Your task to perform on an android device: See recent photos Image 0: 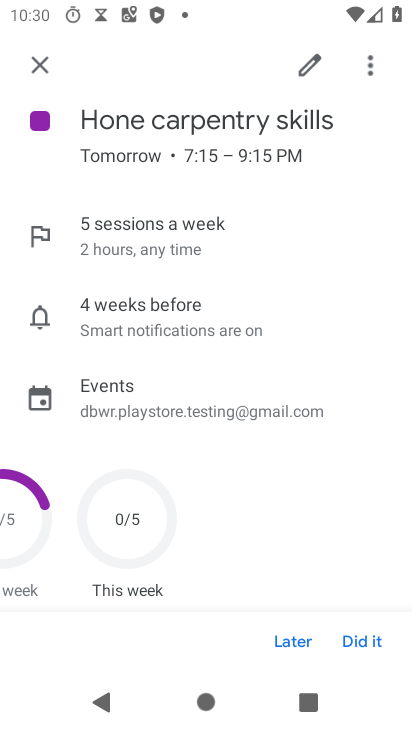
Step 0: press home button
Your task to perform on an android device: See recent photos Image 1: 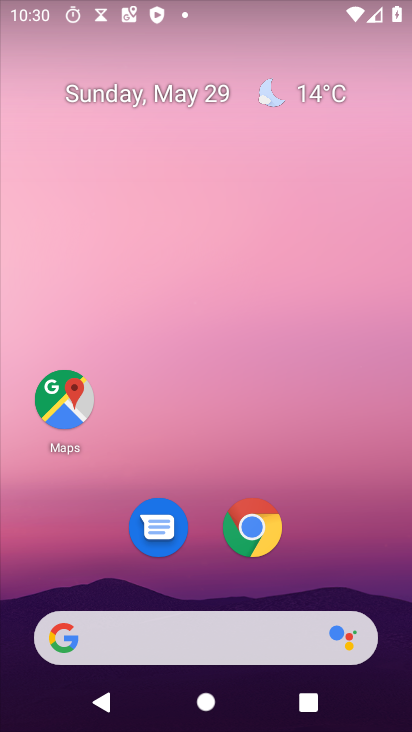
Step 1: drag from (149, 638) to (322, 55)
Your task to perform on an android device: See recent photos Image 2: 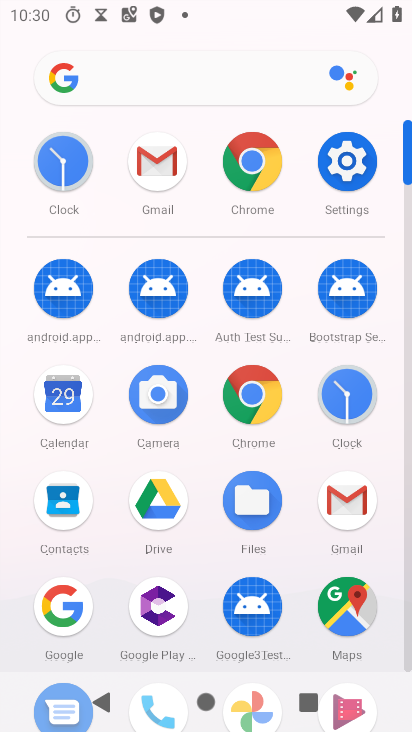
Step 2: drag from (199, 601) to (315, 128)
Your task to perform on an android device: See recent photos Image 3: 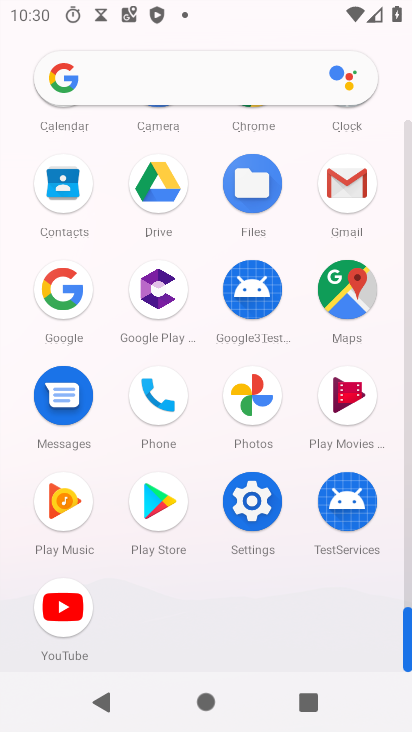
Step 3: click (249, 399)
Your task to perform on an android device: See recent photos Image 4: 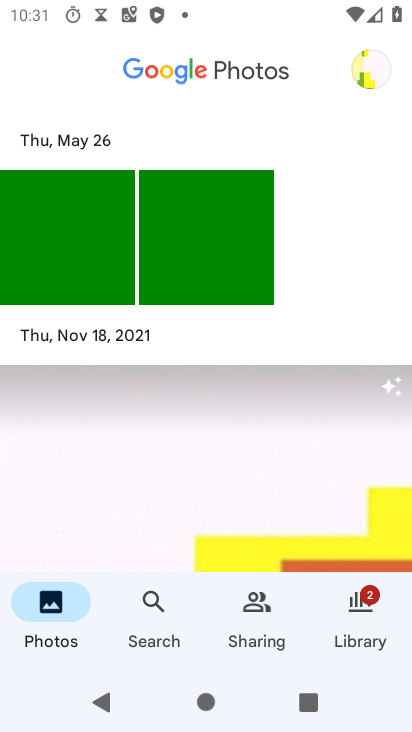
Step 4: click (365, 634)
Your task to perform on an android device: See recent photos Image 5: 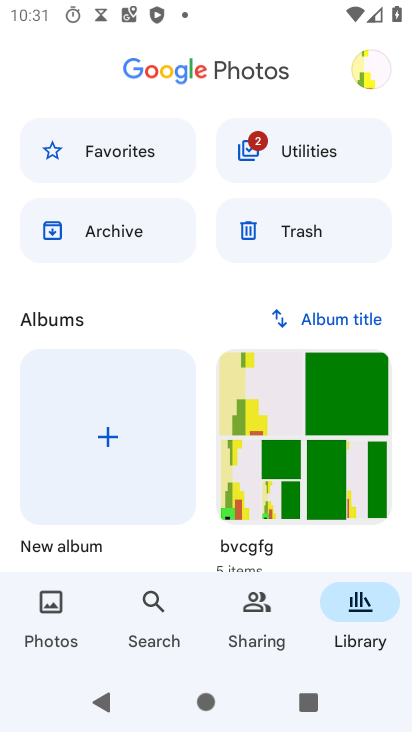
Step 5: click (154, 617)
Your task to perform on an android device: See recent photos Image 6: 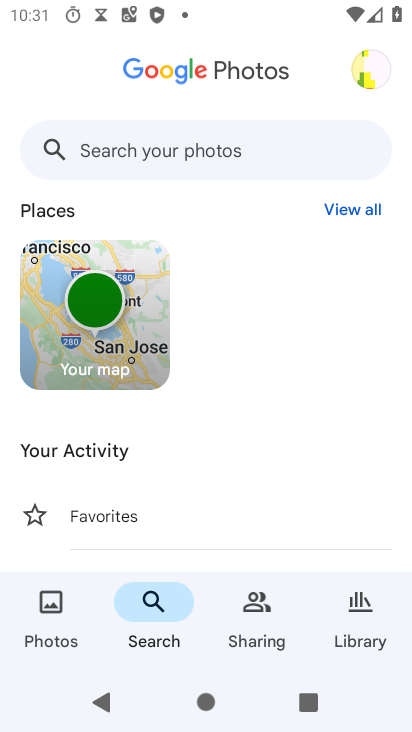
Step 6: drag from (230, 460) to (309, 6)
Your task to perform on an android device: See recent photos Image 7: 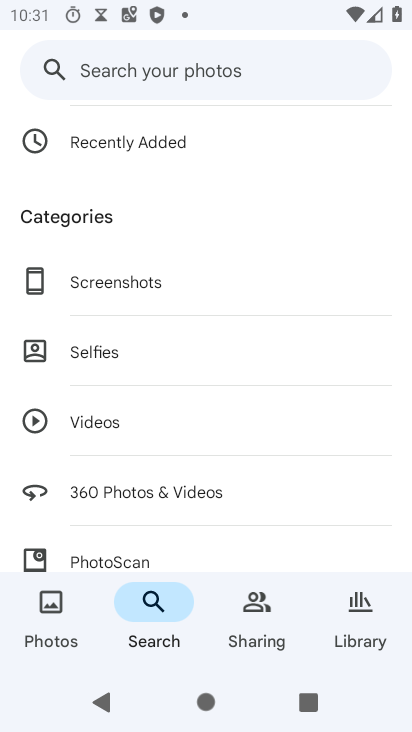
Step 7: click (165, 130)
Your task to perform on an android device: See recent photos Image 8: 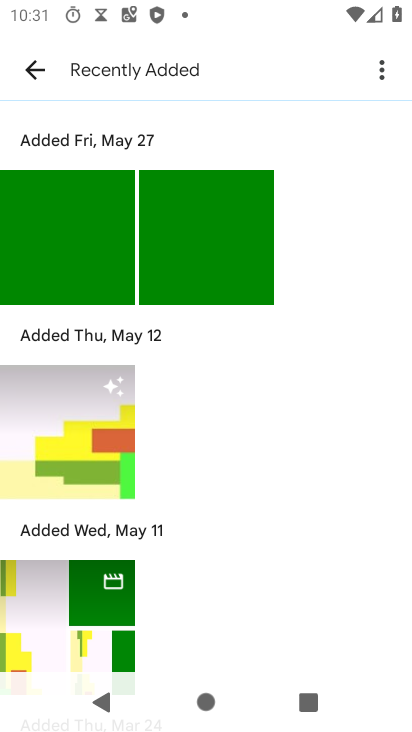
Step 8: task complete